Your task to perform on an android device: turn off wifi Image 0: 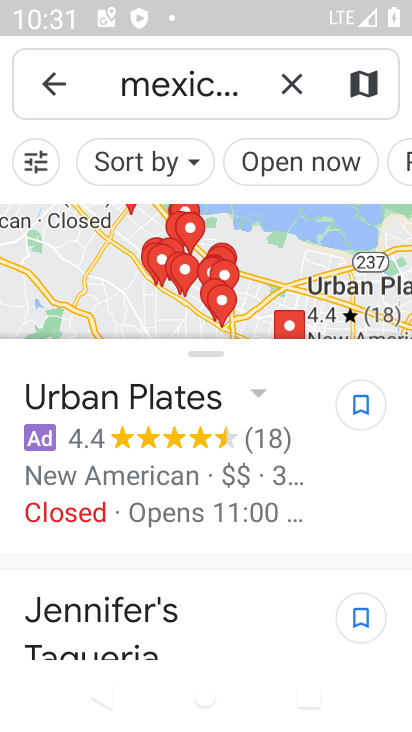
Step 0: press home button
Your task to perform on an android device: turn off wifi Image 1: 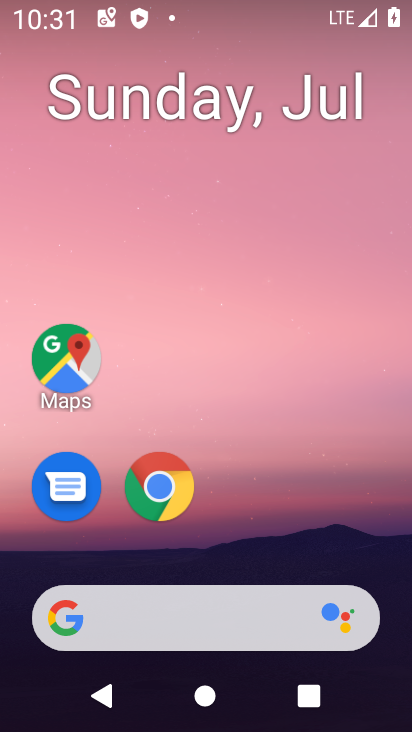
Step 1: drag from (330, 539) to (320, 122)
Your task to perform on an android device: turn off wifi Image 2: 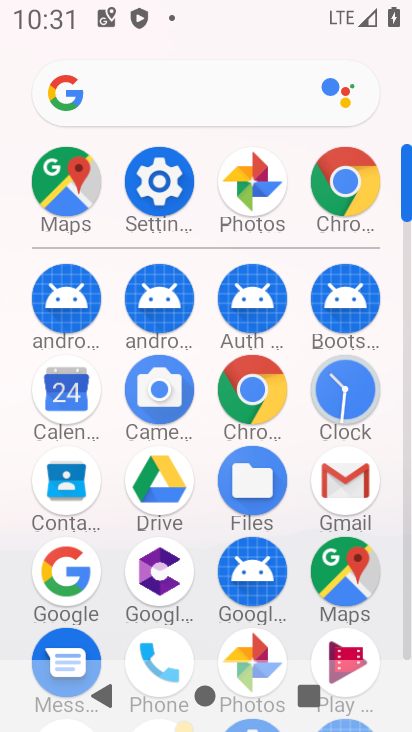
Step 2: click (154, 186)
Your task to perform on an android device: turn off wifi Image 3: 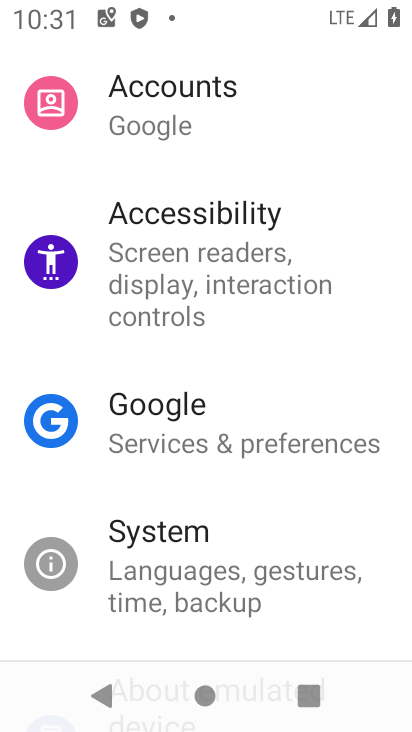
Step 3: drag from (352, 171) to (359, 266)
Your task to perform on an android device: turn off wifi Image 4: 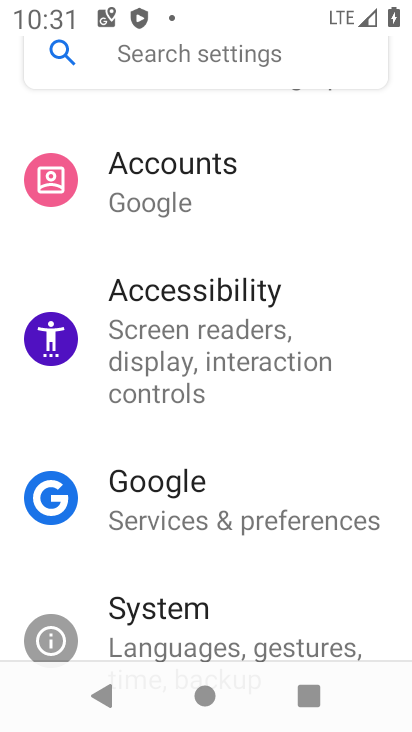
Step 4: drag from (362, 160) to (365, 280)
Your task to perform on an android device: turn off wifi Image 5: 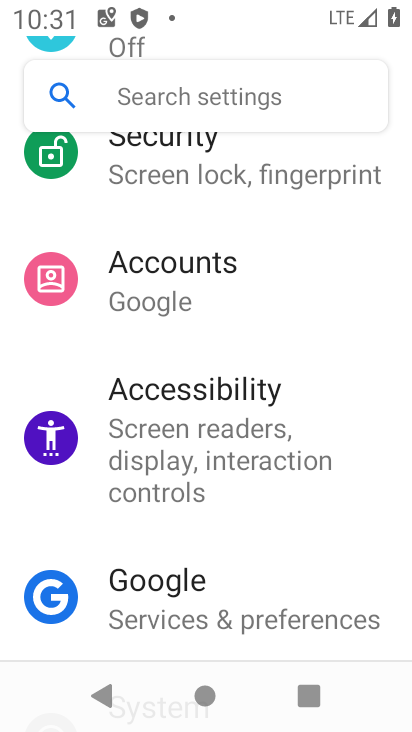
Step 5: drag from (360, 204) to (355, 320)
Your task to perform on an android device: turn off wifi Image 6: 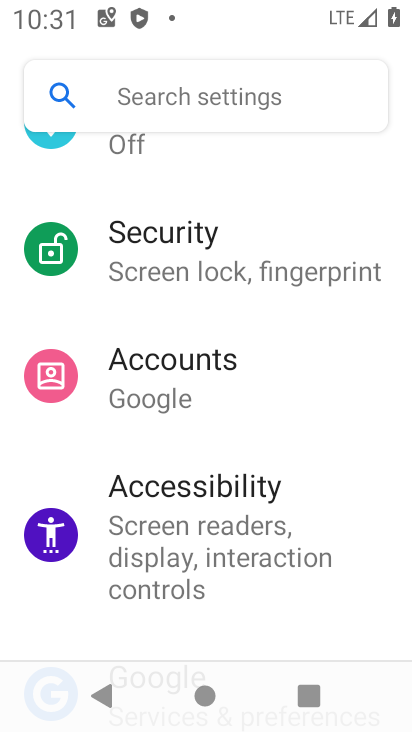
Step 6: drag from (353, 166) to (354, 269)
Your task to perform on an android device: turn off wifi Image 7: 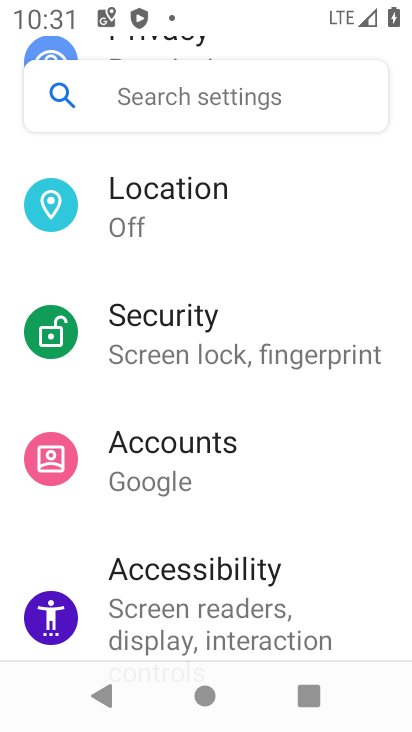
Step 7: drag from (346, 196) to (340, 281)
Your task to perform on an android device: turn off wifi Image 8: 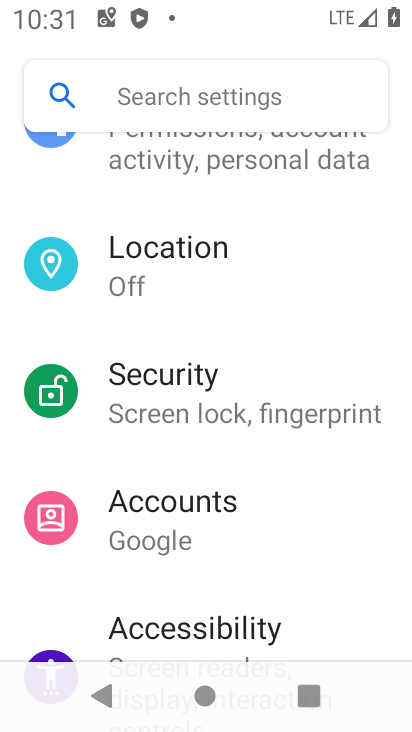
Step 8: drag from (344, 230) to (349, 356)
Your task to perform on an android device: turn off wifi Image 9: 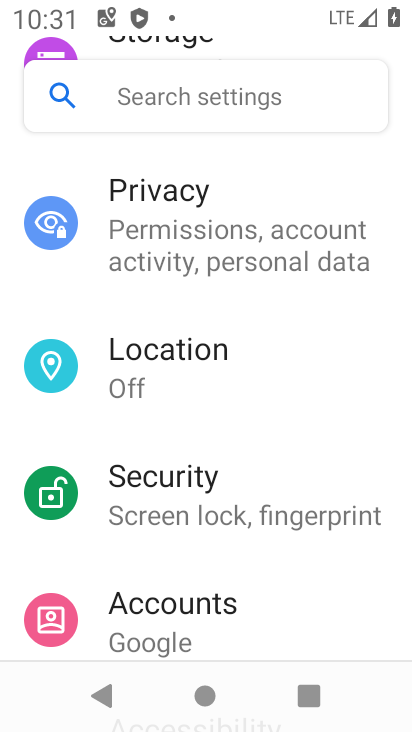
Step 9: drag from (350, 168) to (361, 338)
Your task to perform on an android device: turn off wifi Image 10: 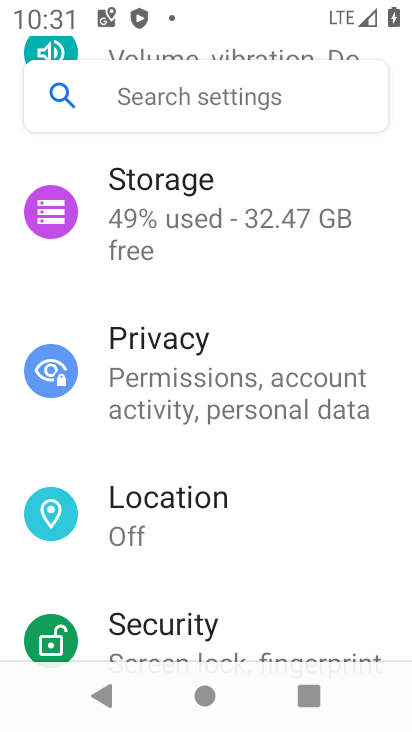
Step 10: drag from (359, 171) to (359, 342)
Your task to perform on an android device: turn off wifi Image 11: 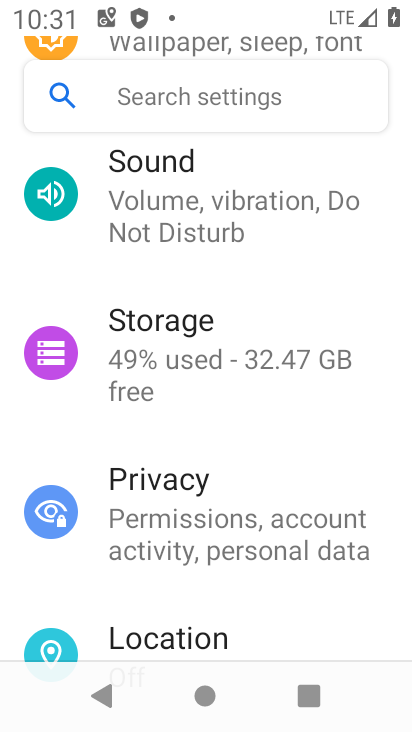
Step 11: drag from (354, 154) to (354, 297)
Your task to perform on an android device: turn off wifi Image 12: 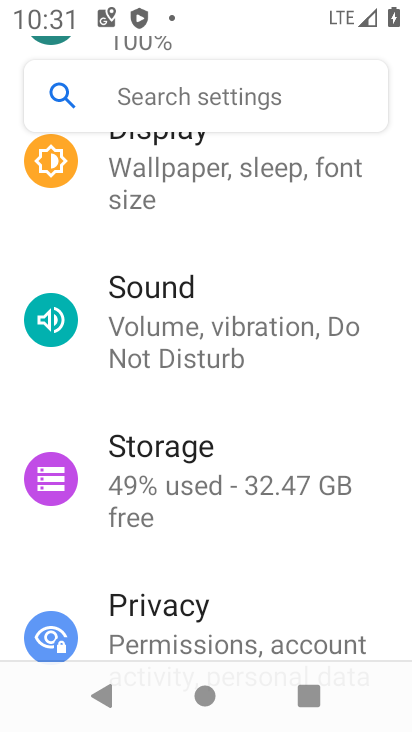
Step 12: drag from (373, 152) to (376, 317)
Your task to perform on an android device: turn off wifi Image 13: 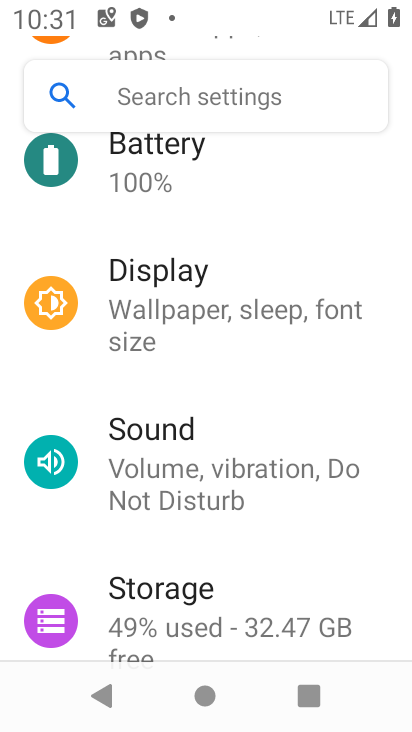
Step 13: drag from (354, 160) to (358, 314)
Your task to perform on an android device: turn off wifi Image 14: 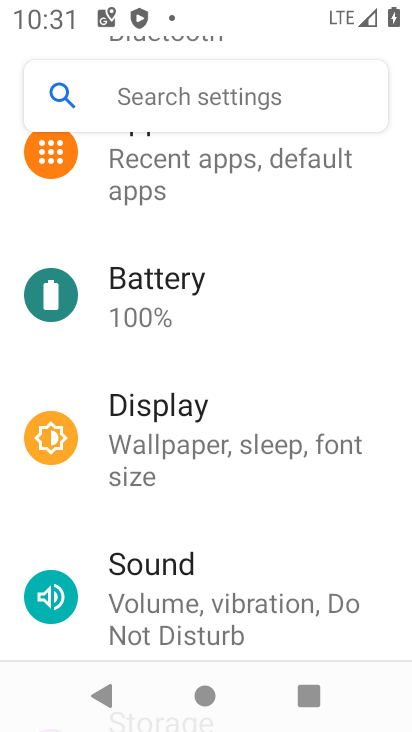
Step 14: drag from (354, 231) to (345, 364)
Your task to perform on an android device: turn off wifi Image 15: 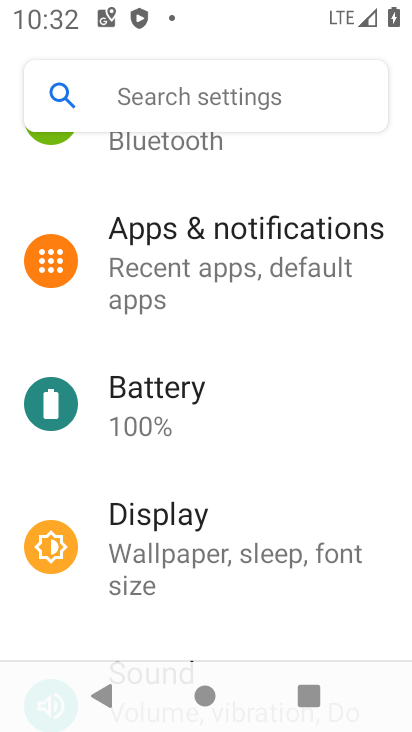
Step 15: drag from (338, 166) to (344, 306)
Your task to perform on an android device: turn off wifi Image 16: 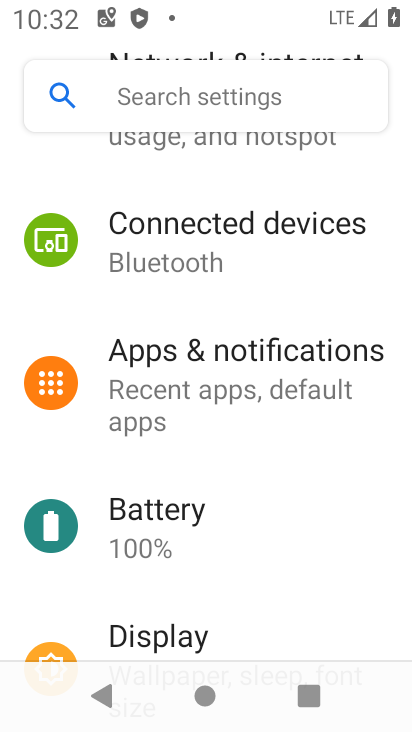
Step 16: drag from (348, 152) to (341, 329)
Your task to perform on an android device: turn off wifi Image 17: 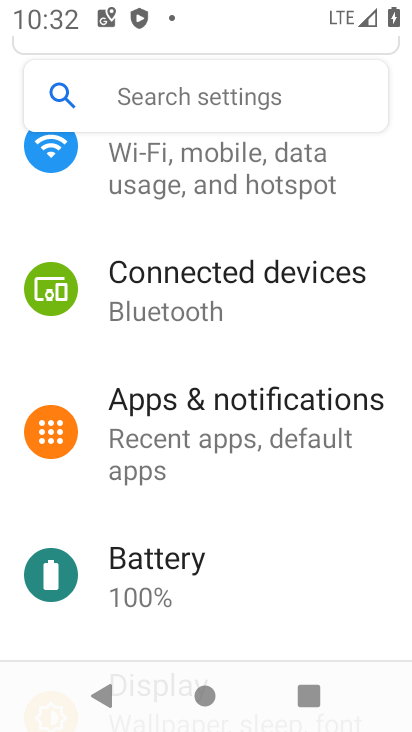
Step 17: click (259, 161)
Your task to perform on an android device: turn off wifi Image 18: 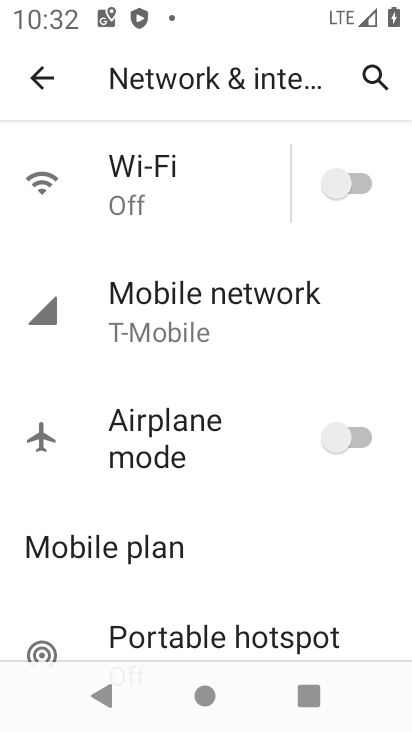
Step 18: task complete